Your task to perform on an android device: open app "Airtel Thanks" (install if not already installed) and go to login screen Image 0: 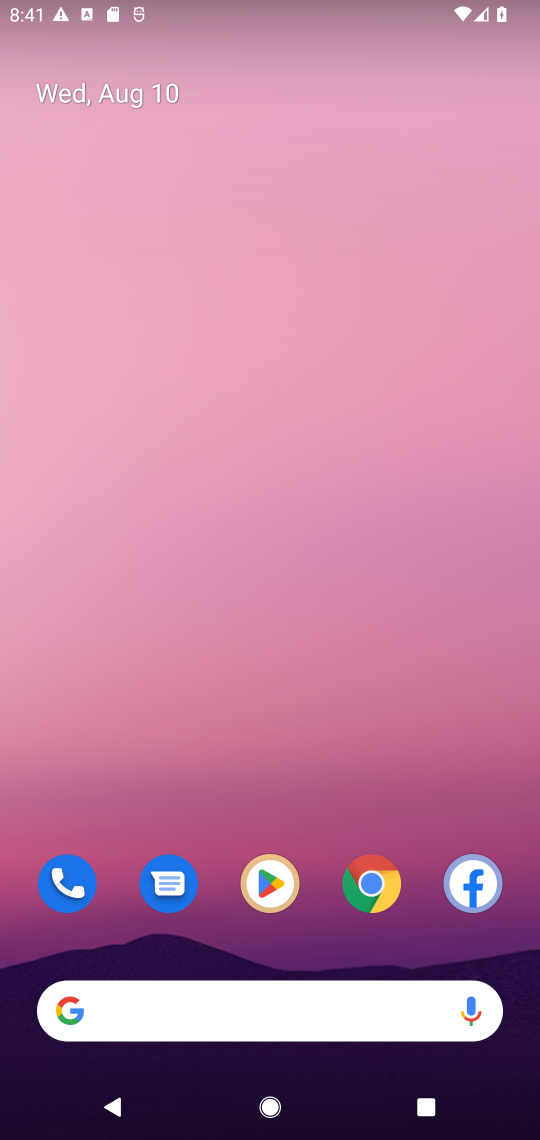
Step 0: drag from (328, 964) to (302, 54)
Your task to perform on an android device: open app "Airtel Thanks" (install if not already installed) and go to login screen Image 1: 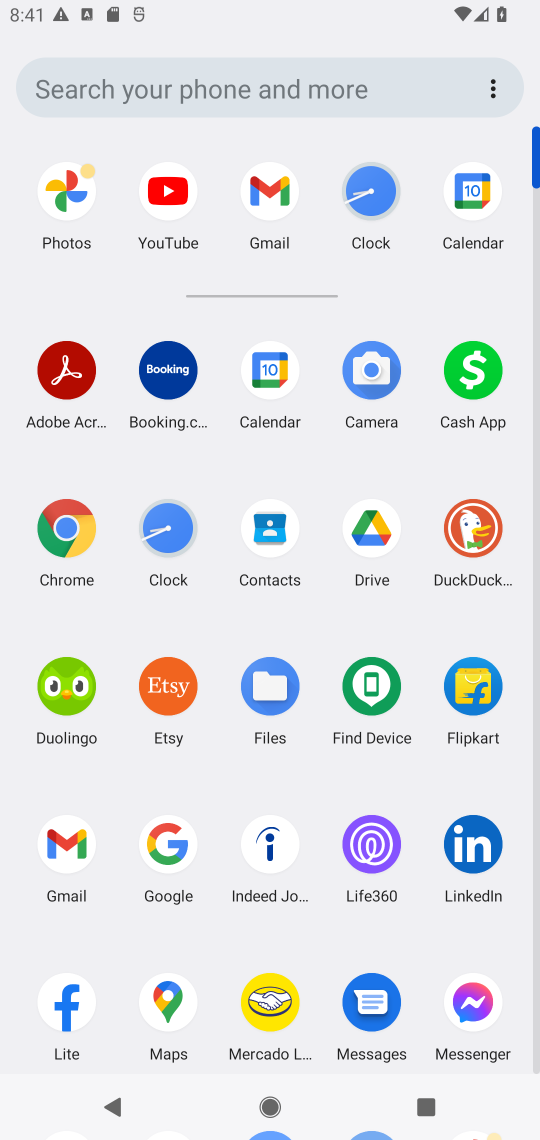
Step 1: drag from (221, 985) to (221, 294)
Your task to perform on an android device: open app "Airtel Thanks" (install if not already installed) and go to login screen Image 2: 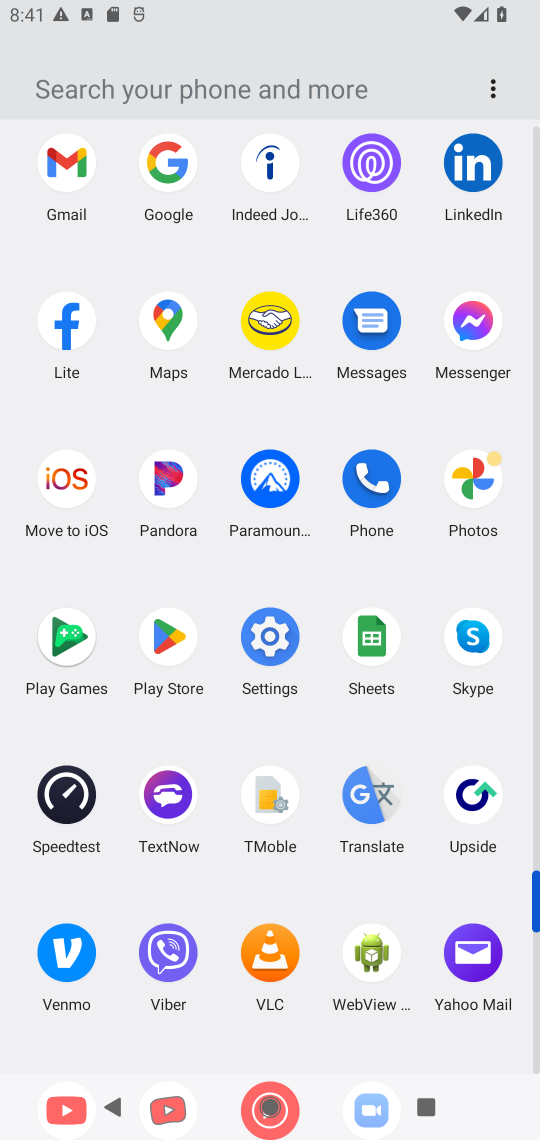
Step 2: click (164, 634)
Your task to perform on an android device: open app "Airtel Thanks" (install if not already installed) and go to login screen Image 3: 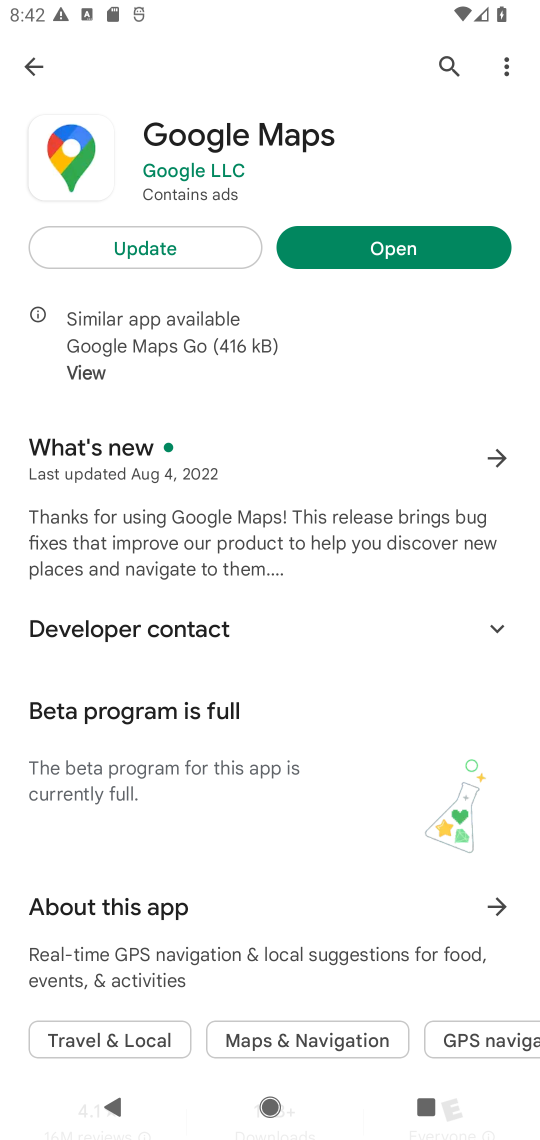
Step 3: click (444, 66)
Your task to perform on an android device: open app "Airtel Thanks" (install if not already installed) and go to login screen Image 4: 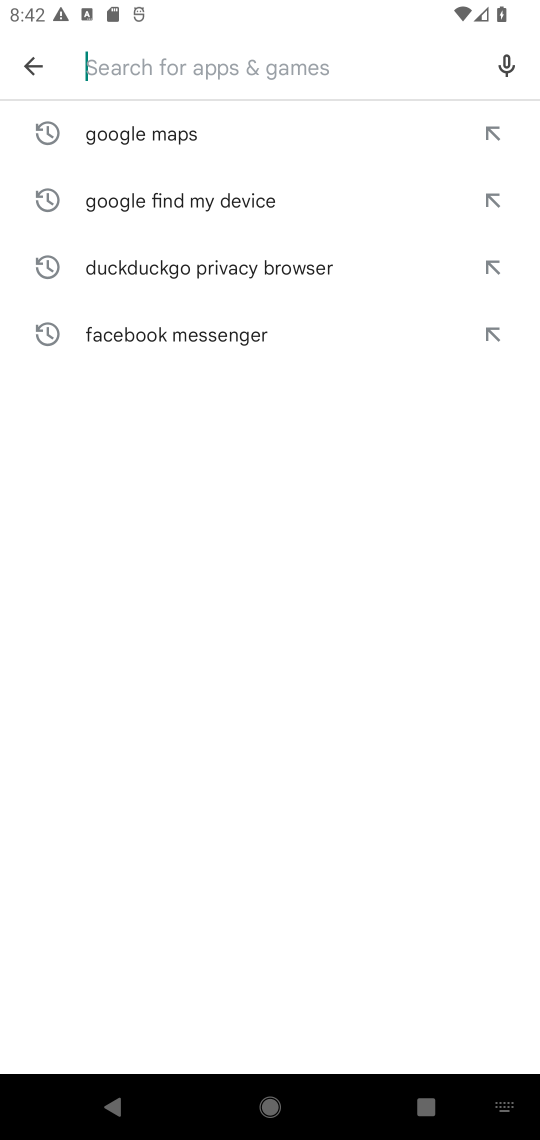
Step 4: type "Airtel Thanks"
Your task to perform on an android device: open app "Airtel Thanks" (install if not already installed) and go to login screen Image 5: 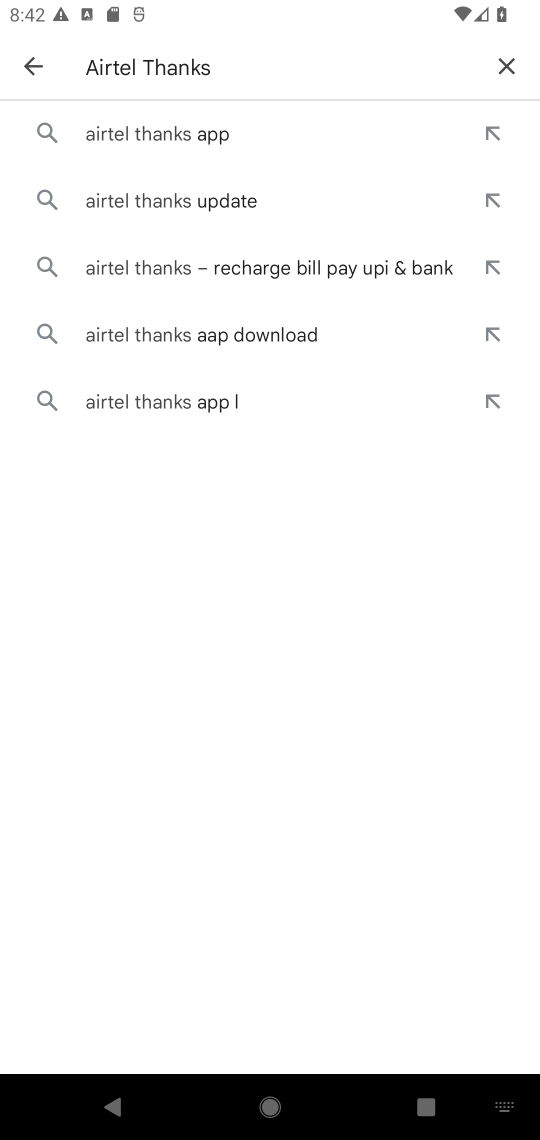
Step 5: click (218, 132)
Your task to perform on an android device: open app "Airtel Thanks" (install if not already installed) and go to login screen Image 6: 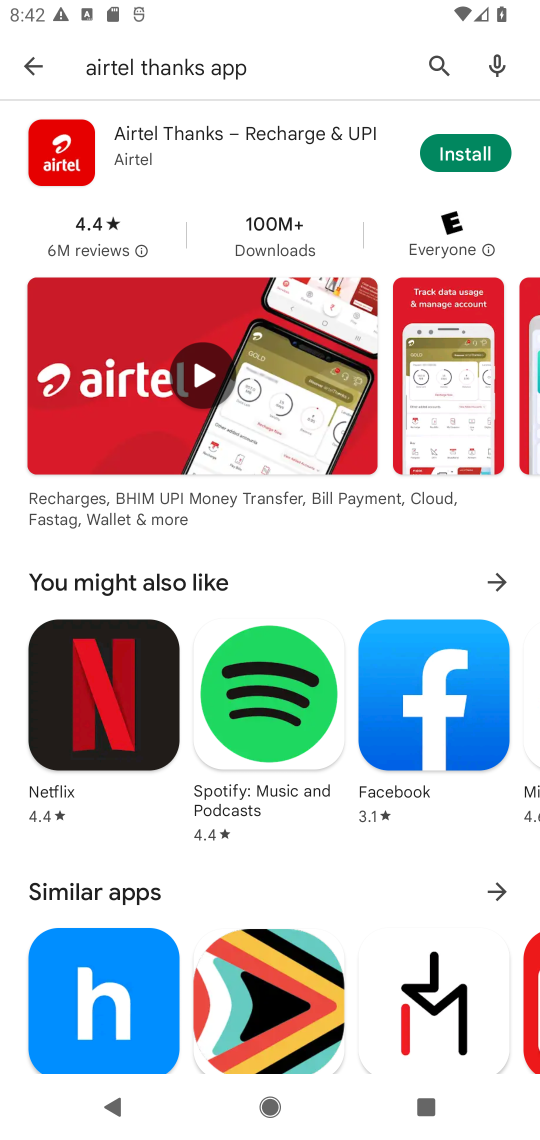
Step 6: click (468, 150)
Your task to perform on an android device: open app "Airtel Thanks" (install if not already installed) and go to login screen Image 7: 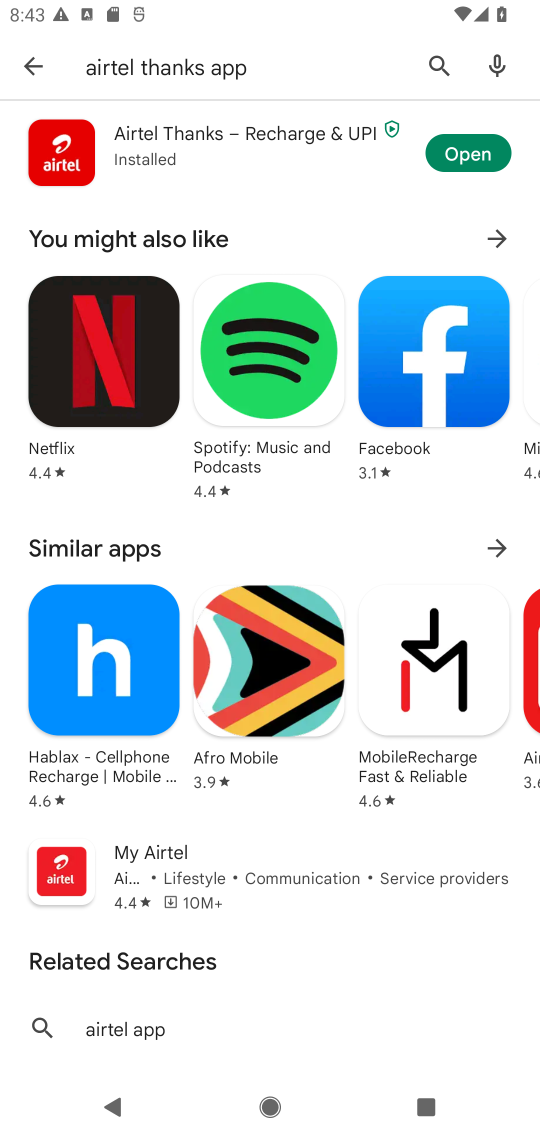
Step 7: click (465, 160)
Your task to perform on an android device: open app "Airtel Thanks" (install if not already installed) and go to login screen Image 8: 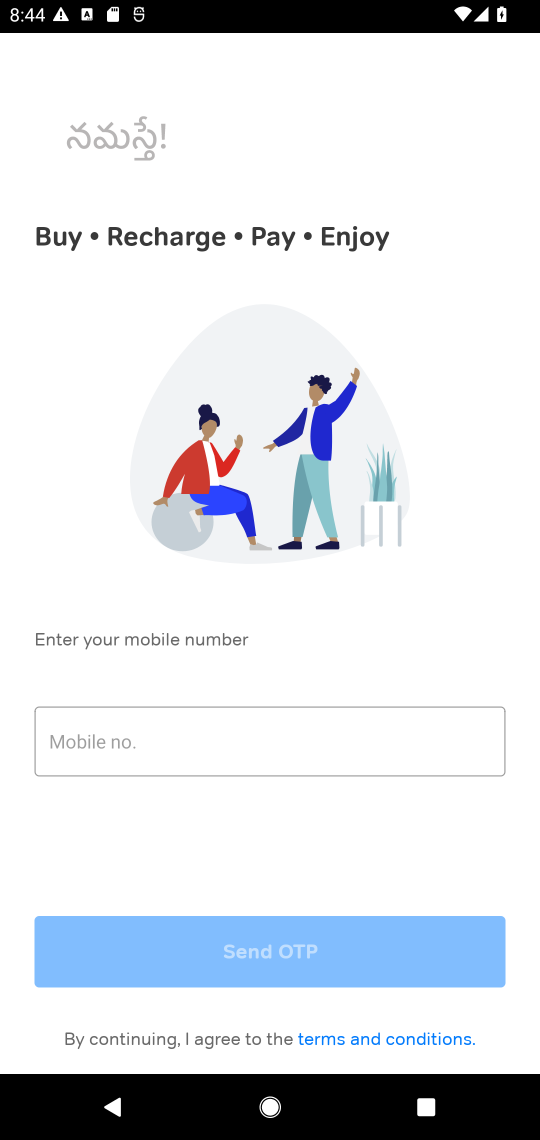
Step 8: task complete